Your task to perform on an android device: toggle sleep mode Image 0: 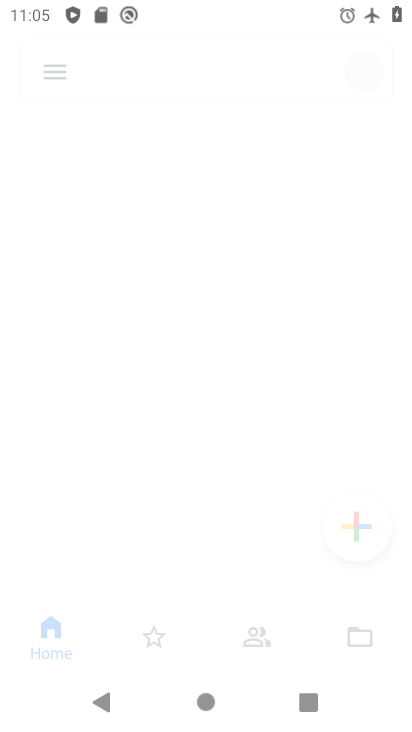
Step 0: drag from (283, 580) to (343, 283)
Your task to perform on an android device: toggle sleep mode Image 1: 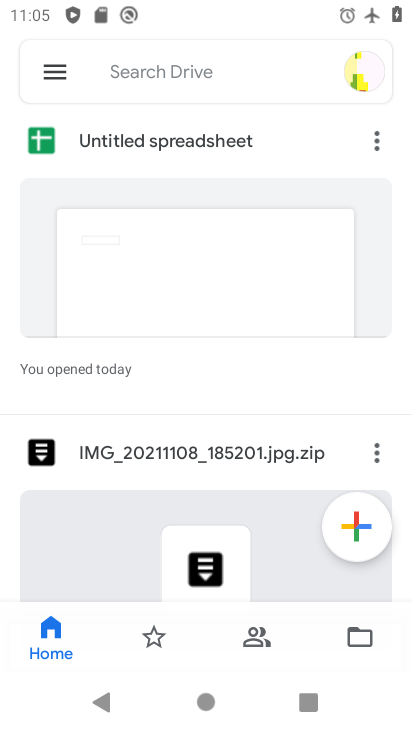
Step 1: press home button
Your task to perform on an android device: toggle sleep mode Image 2: 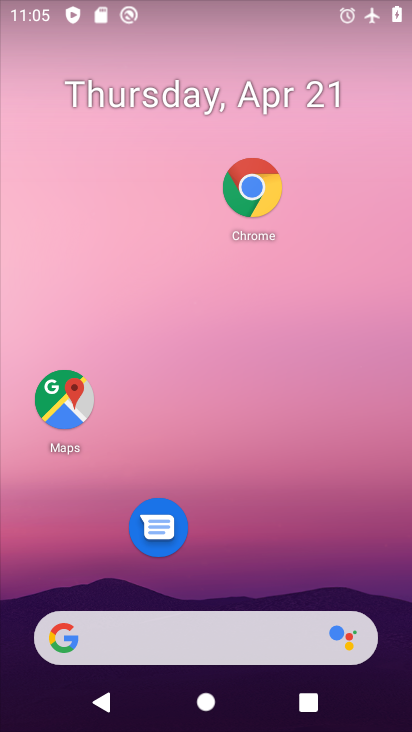
Step 2: drag from (291, 617) to (393, 193)
Your task to perform on an android device: toggle sleep mode Image 3: 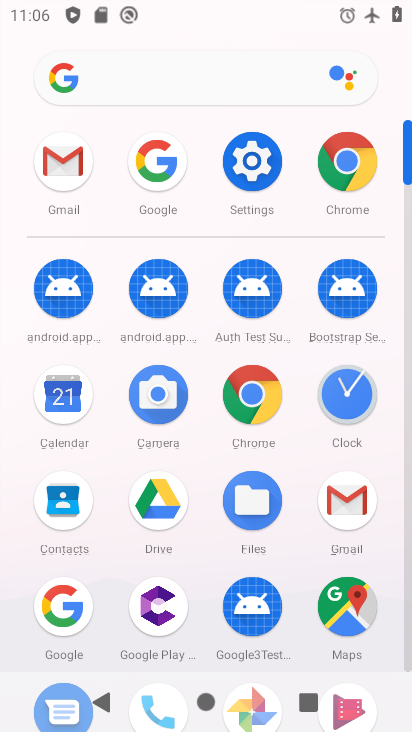
Step 3: click (274, 186)
Your task to perform on an android device: toggle sleep mode Image 4: 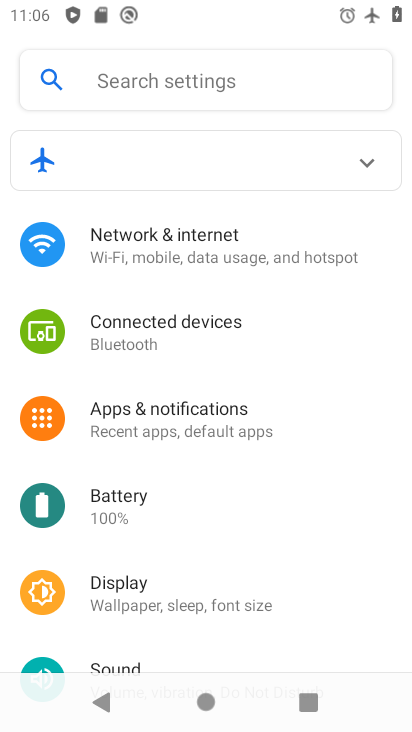
Step 4: drag from (224, 541) to (325, 269)
Your task to perform on an android device: toggle sleep mode Image 5: 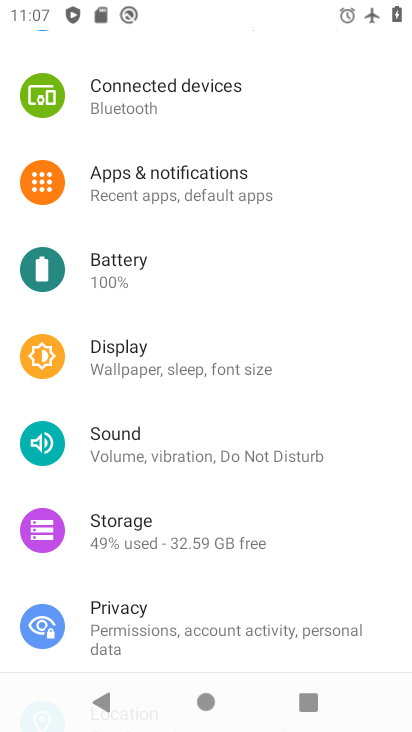
Step 5: click (200, 371)
Your task to perform on an android device: toggle sleep mode Image 6: 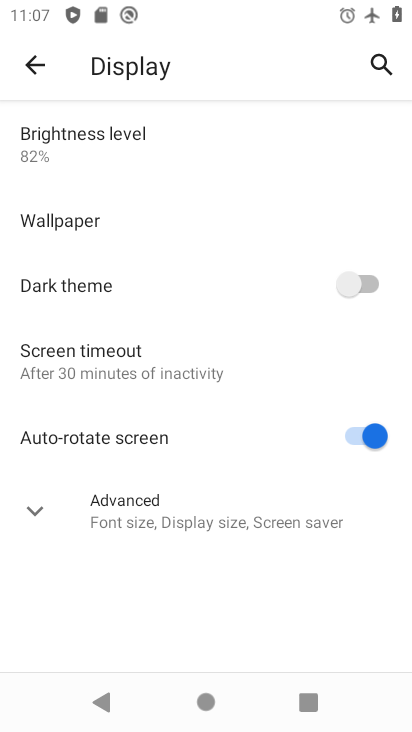
Step 6: click (187, 521)
Your task to perform on an android device: toggle sleep mode Image 7: 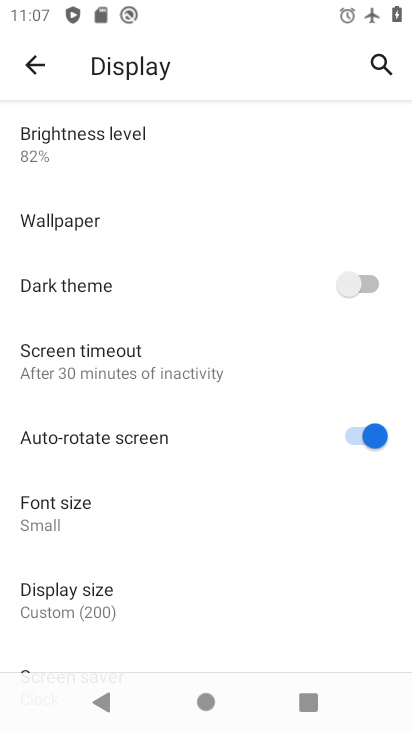
Step 7: task complete